Your task to perform on an android device: Go to settings Image 0: 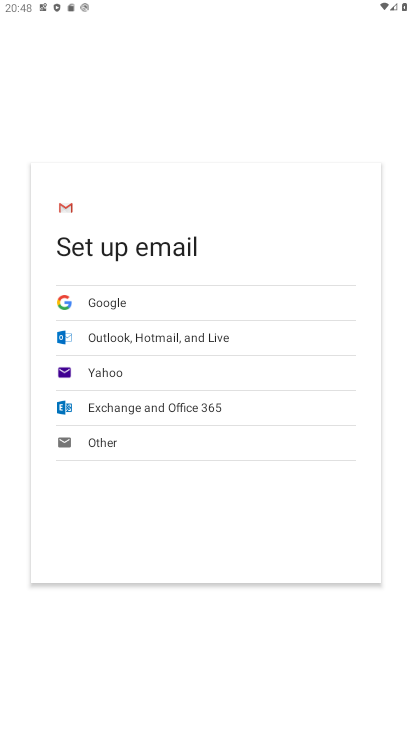
Step 0: press home button
Your task to perform on an android device: Go to settings Image 1: 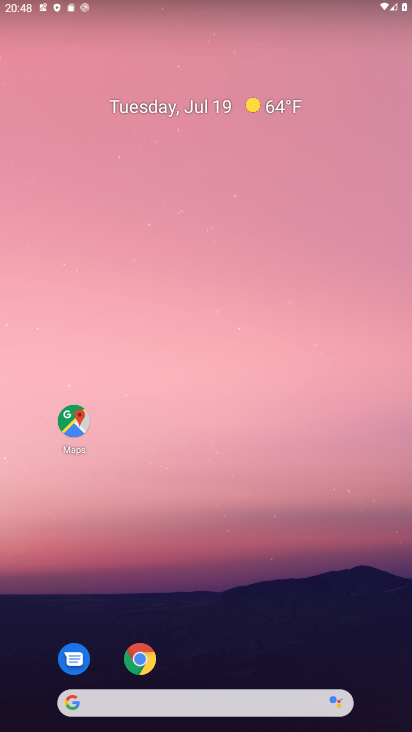
Step 1: click (166, 102)
Your task to perform on an android device: Go to settings Image 2: 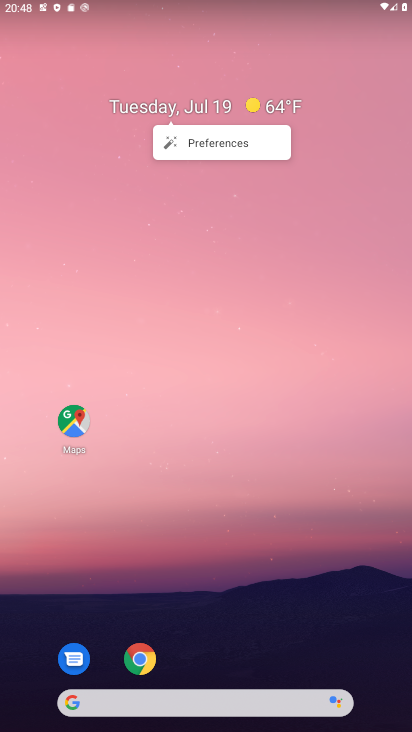
Step 2: click (316, 92)
Your task to perform on an android device: Go to settings Image 3: 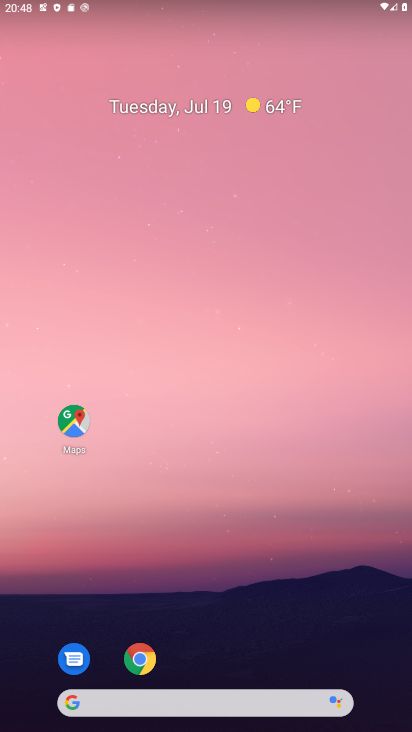
Step 3: drag from (232, 640) to (131, 38)
Your task to perform on an android device: Go to settings Image 4: 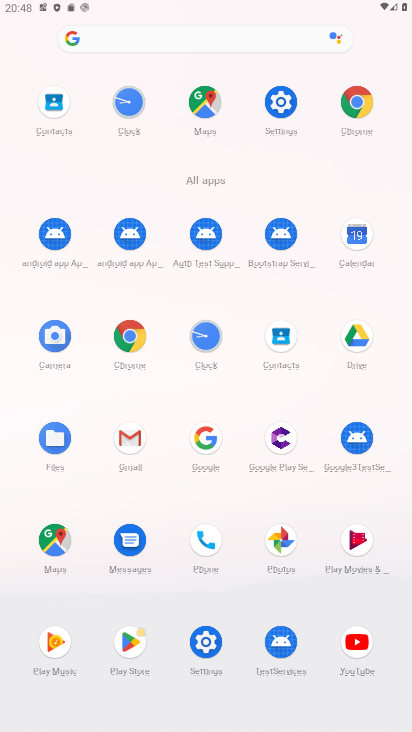
Step 4: click (292, 119)
Your task to perform on an android device: Go to settings Image 5: 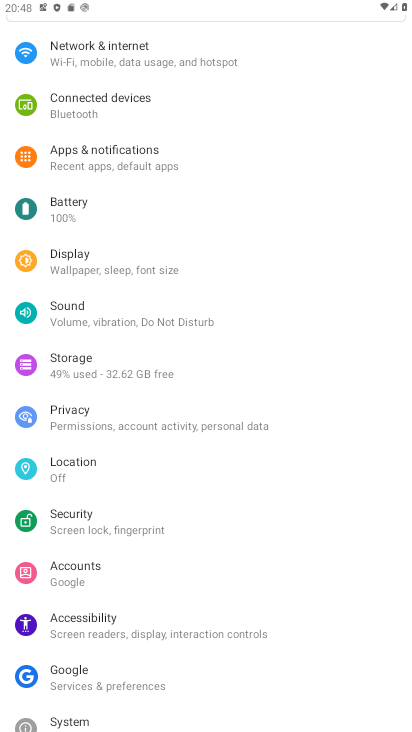
Step 5: task complete